Your task to perform on an android device: turn off priority inbox in the gmail app Image 0: 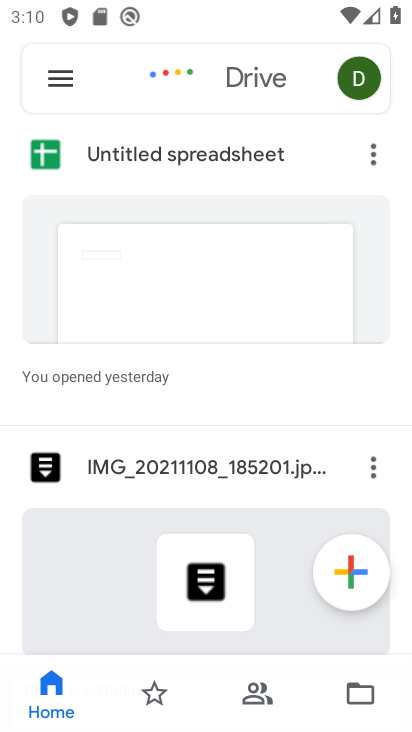
Step 0: press home button
Your task to perform on an android device: turn off priority inbox in the gmail app Image 1: 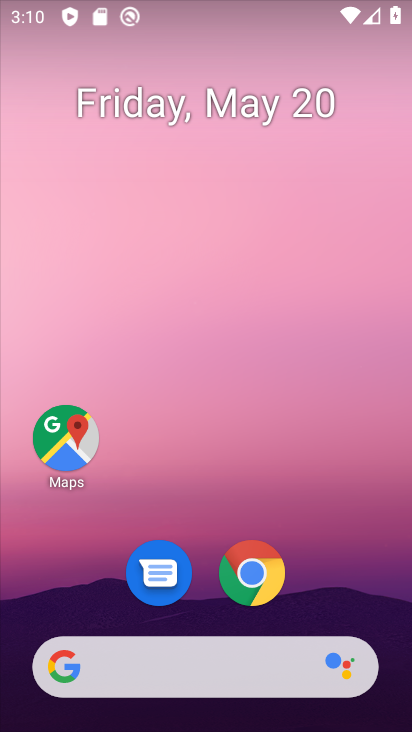
Step 1: drag from (186, 618) to (271, 38)
Your task to perform on an android device: turn off priority inbox in the gmail app Image 2: 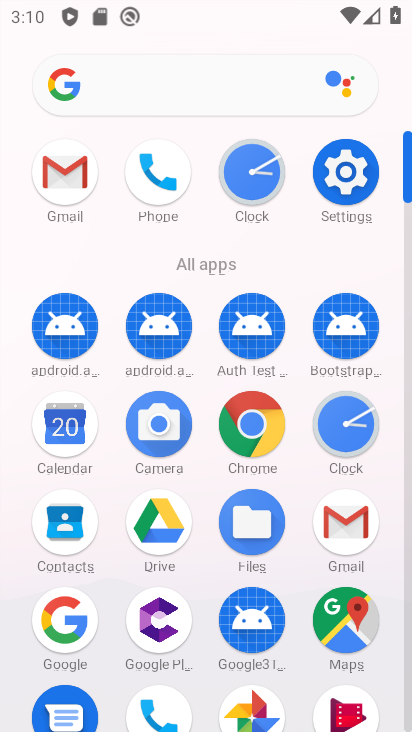
Step 2: click (366, 538)
Your task to perform on an android device: turn off priority inbox in the gmail app Image 3: 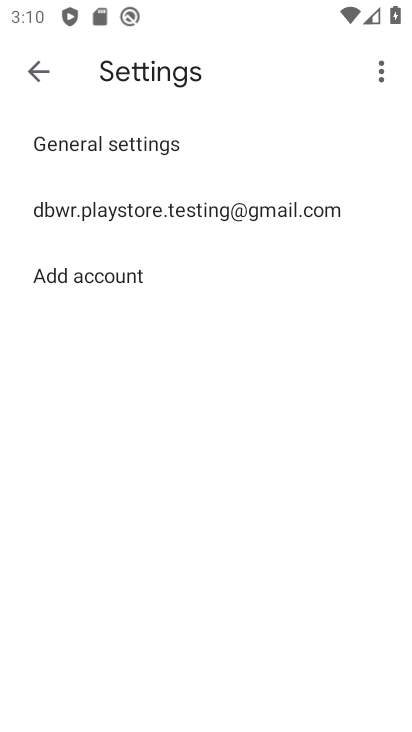
Step 3: click (140, 219)
Your task to perform on an android device: turn off priority inbox in the gmail app Image 4: 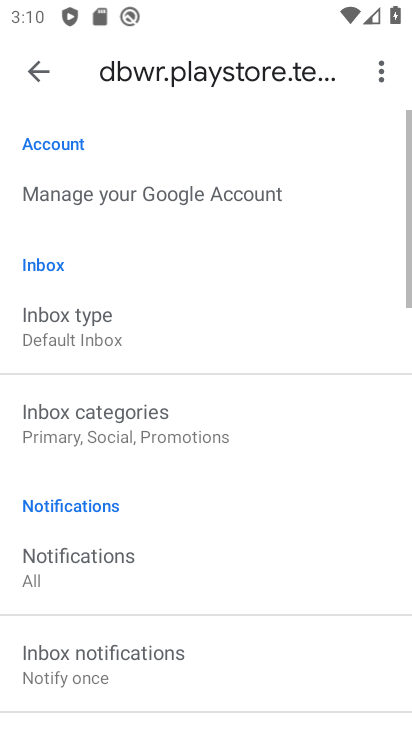
Step 4: click (93, 337)
Your task to perform on an android device: turn off priority inbox in the gmail app Image 5: 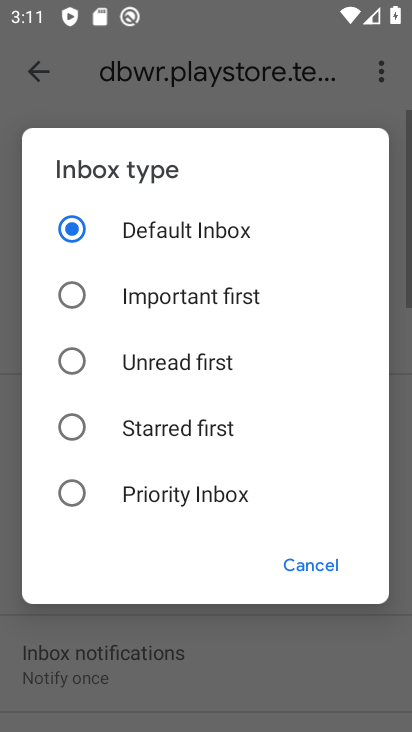
Step 5: task complete